Your task to perform on an android device: uninstall "Grab" Image 0: 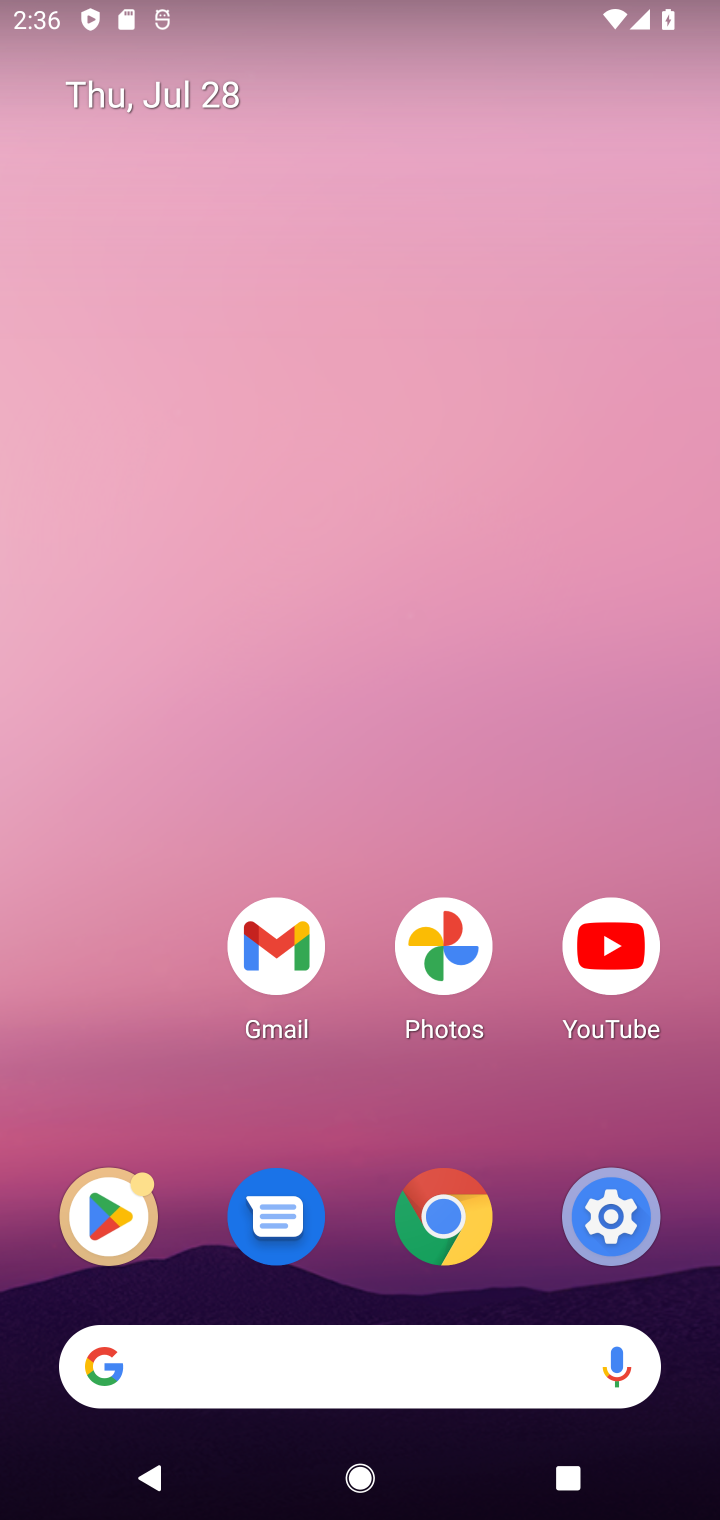
Step 0: drag from (407, 782) to (444, 141)
Your task to perform on an android device: uninstall "Grab" Image 1: 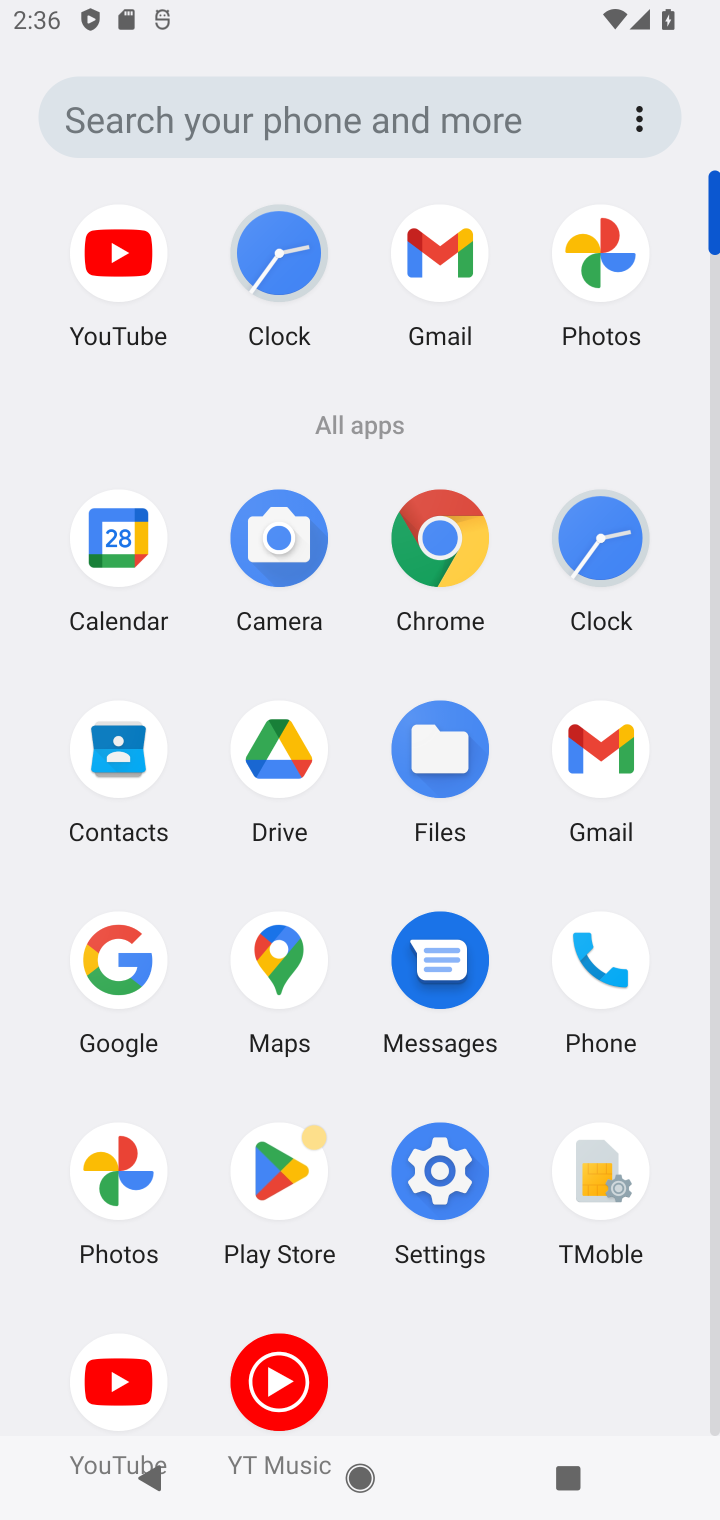
Step 1: task complete